Your task to perform on an android device: see sites visited before in the chrome app Image 0: 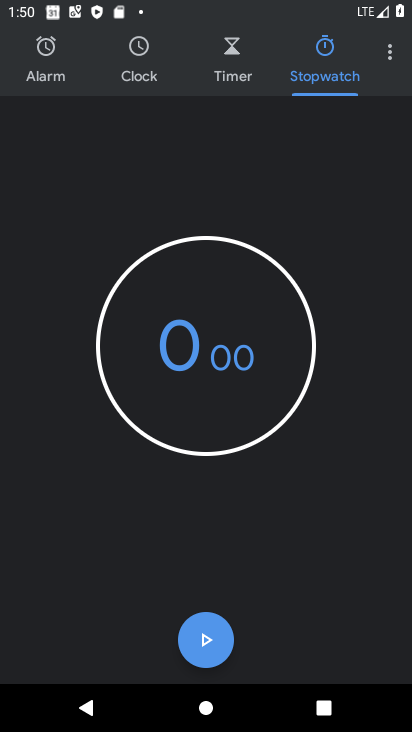
Step 0: press home button
Your task to perform on an android device: see sites visited before in the chrome app Image 1: 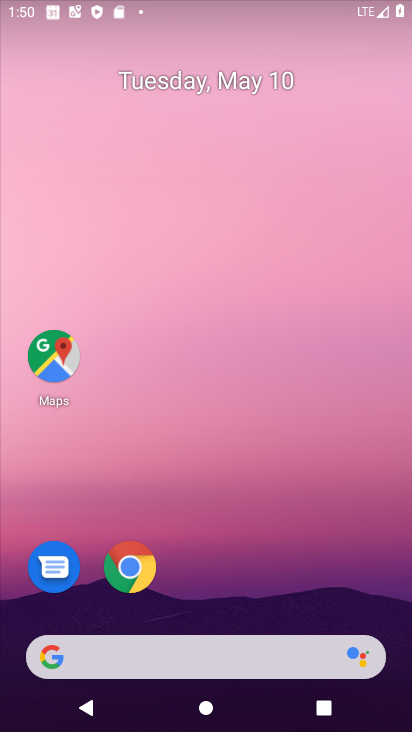
Step 1: drag from (394, 643) to (330, 65)
Your task to perform on an android device: see sites visited before in the chrome app Image 2: 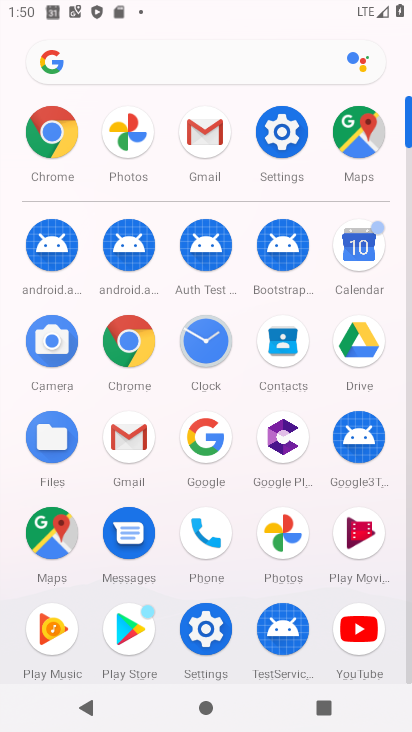
Step 2: click (122, 354)
Your task to perform on an android device: see sites visited before in the chrome app Image 3: 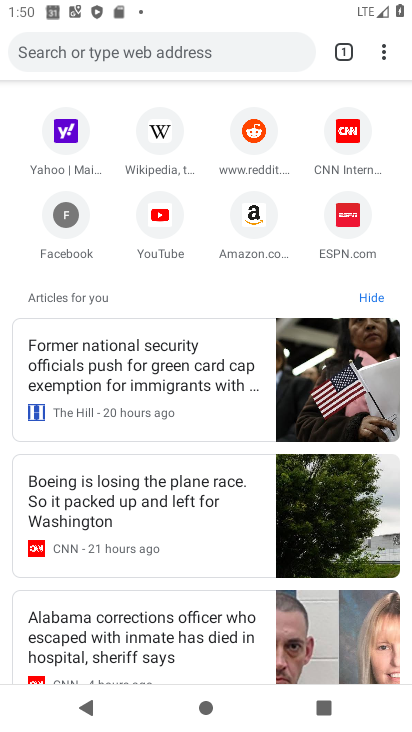
Step 3: click (387, 56)
Your task to perform on an android device: see sites visited before in the chrome app Image 4: 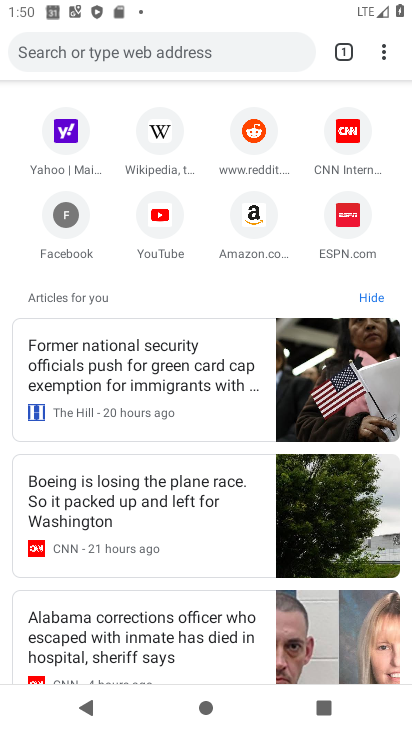
Step 4: click (378, 49)
Your task to perform on an android device: see sites visited before in the chrome app Image 5: 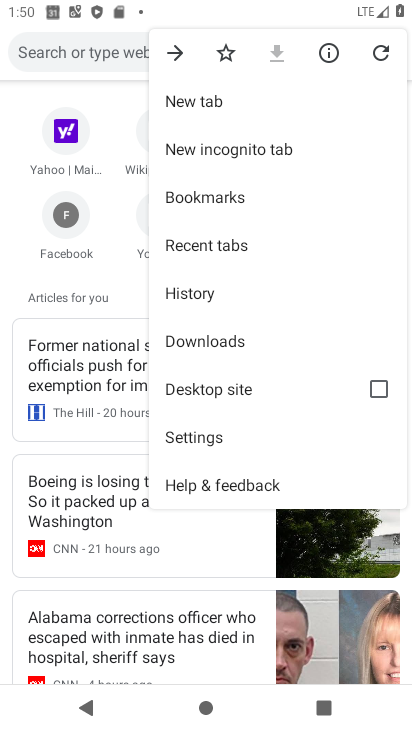
Step 5: click (237, 299)
Your task to perform on an android device: see sites visited before in the chrome app Image 6: 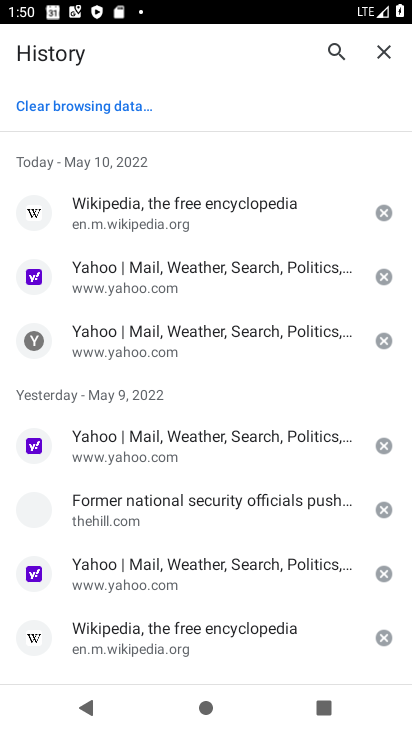
Step 6: click (170, 231)
Your task to perform on an android device: see sites visited before in the chrome app Image 7: 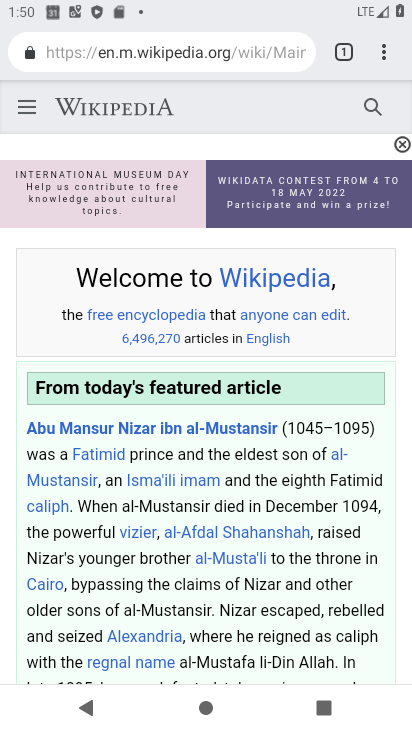
Step 7: task complete